Your task to perform on an android device: Turn off the flashlight Image 0: 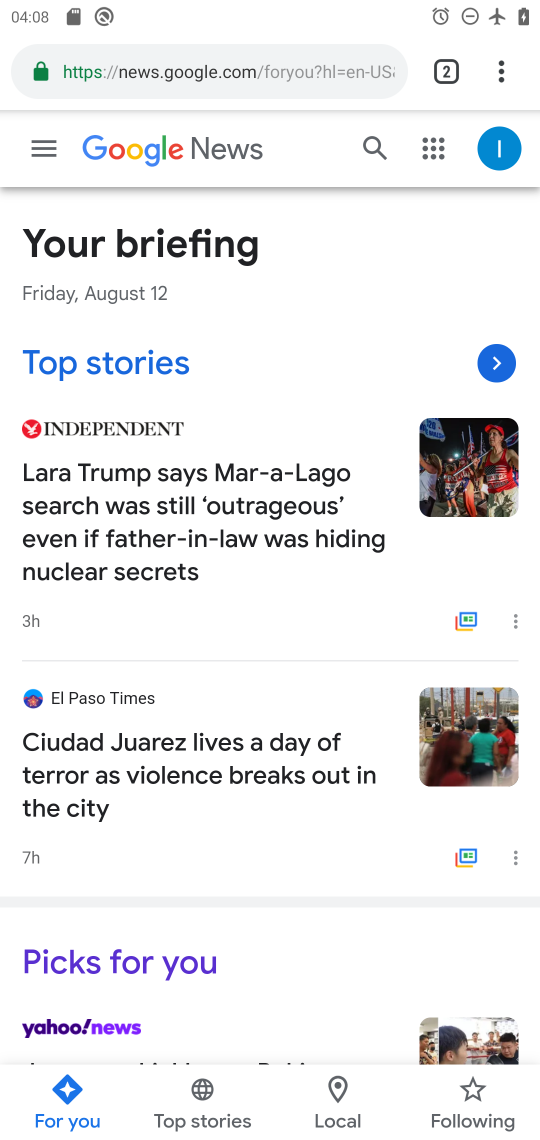
Step 0: press home button
Your task to perform on an android device: Turn off the flashlight Image 1: 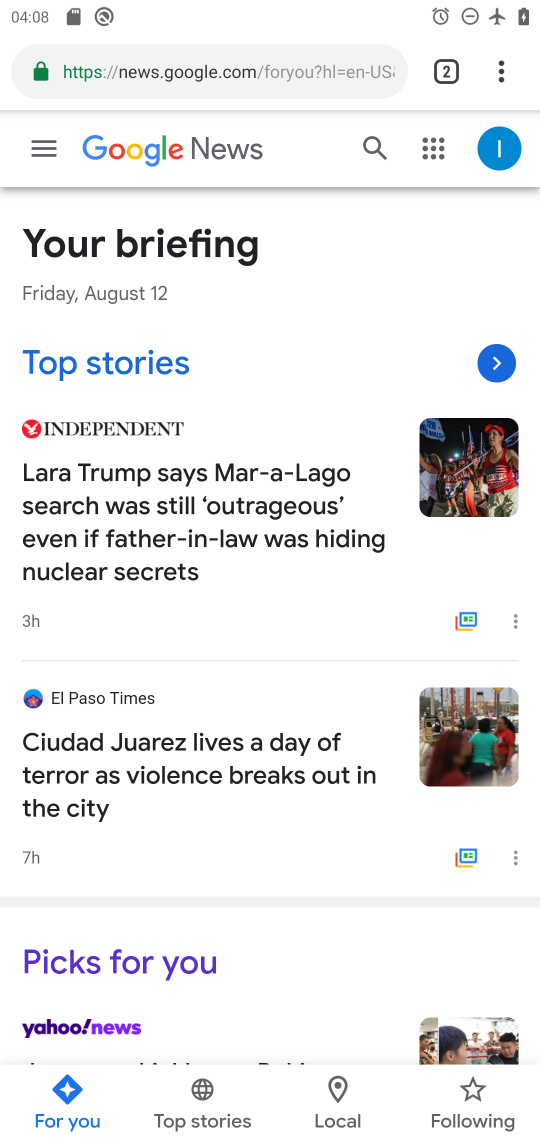
Step 1: press home button
Your task to perform on an android device: Turn off the flashlight Image 2: 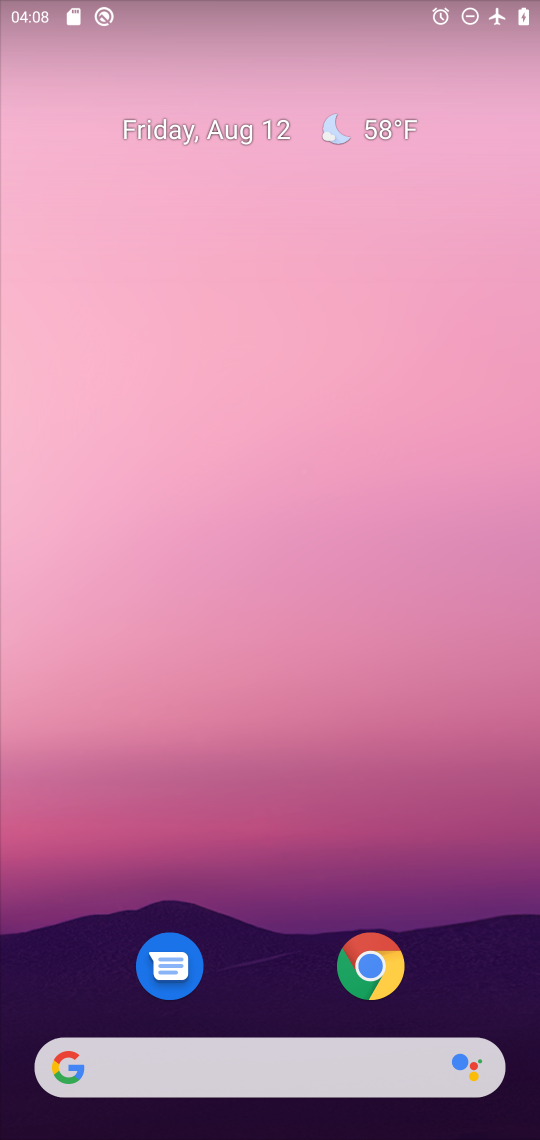
Step 2: drag from (255, 847) to (377, 200)
Your task to perform on an android device: Turn off the flashlight Image 3: 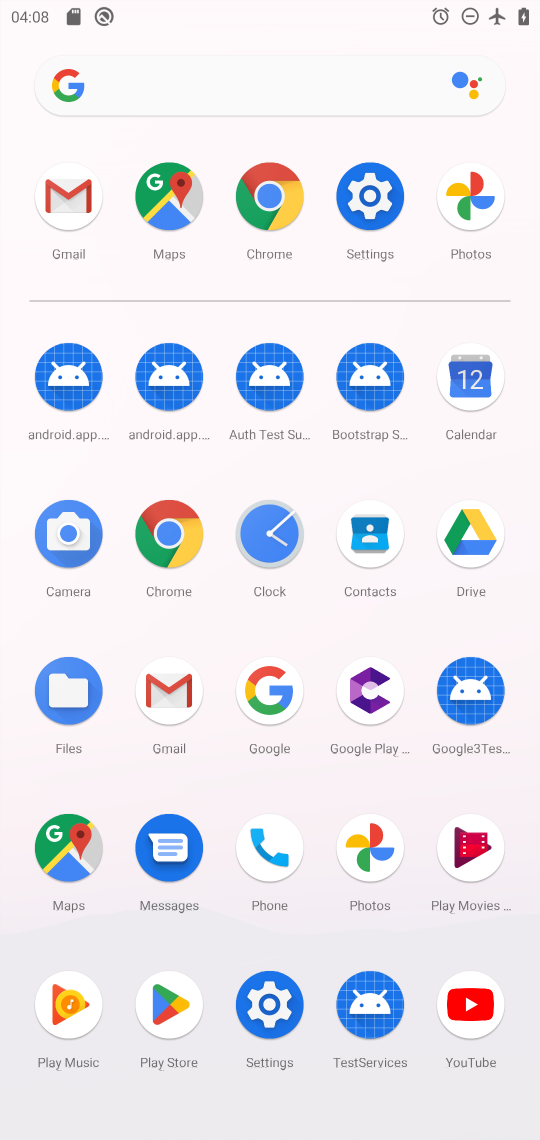
Step 3: click (267, 1011)
Your task to perform on an android device: Turn off the flashlight Image 4: 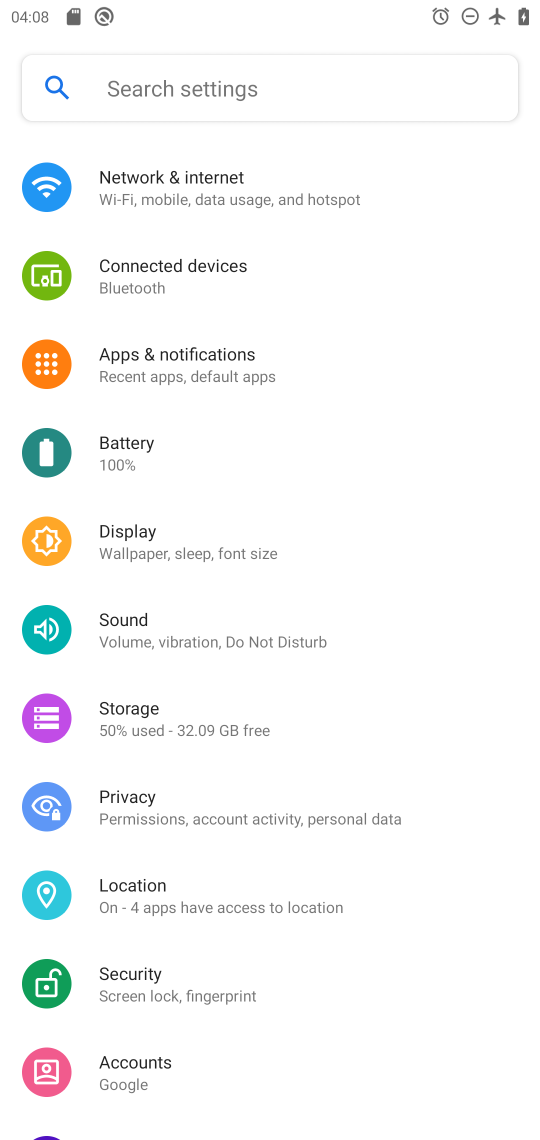
Step 4: click (123, 539)
Your task to perform on an android device: Turn off the flashlight Image 5: 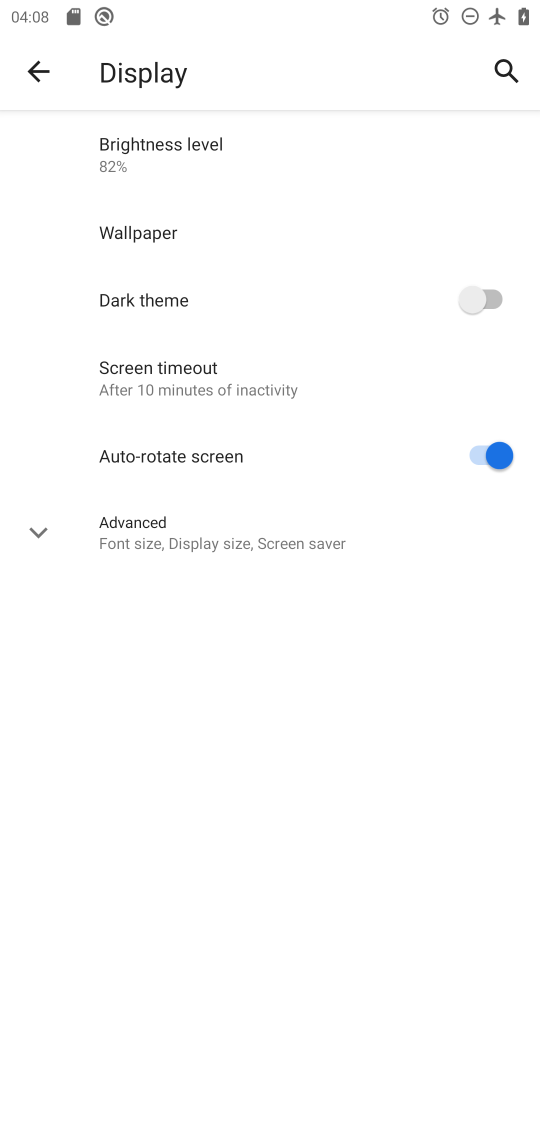
Step 5: click (151, 368)
Your task to perform on an android device: Turn off the flashlight Image 6: 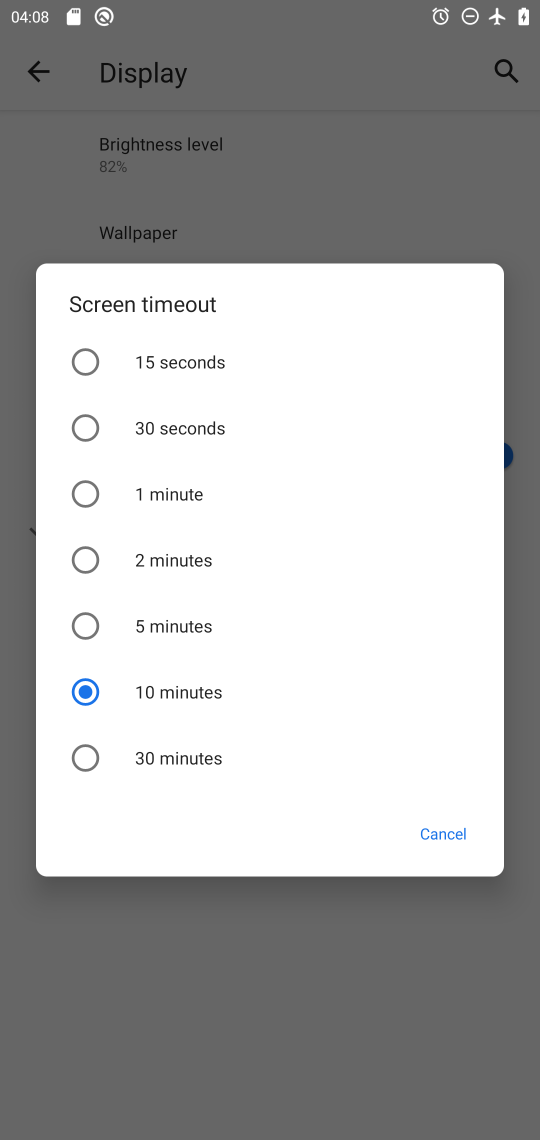
Step 6: task complete